Your task to perform on an android device: find which apps use the phone's location Image 0: 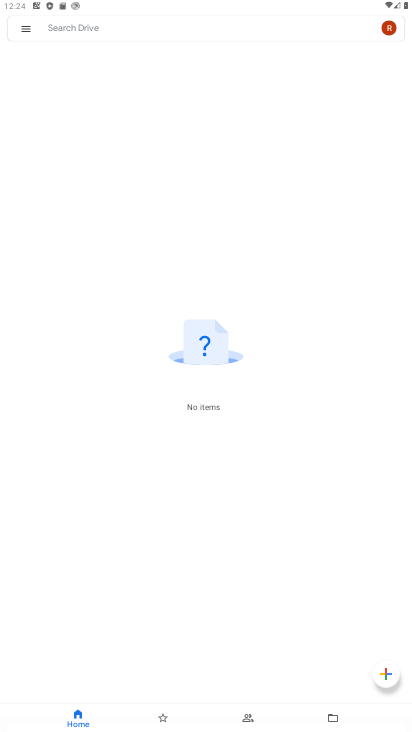
Step 0: press home button
Your task to perform on an android device: find which apps use the phone's location Image 1: 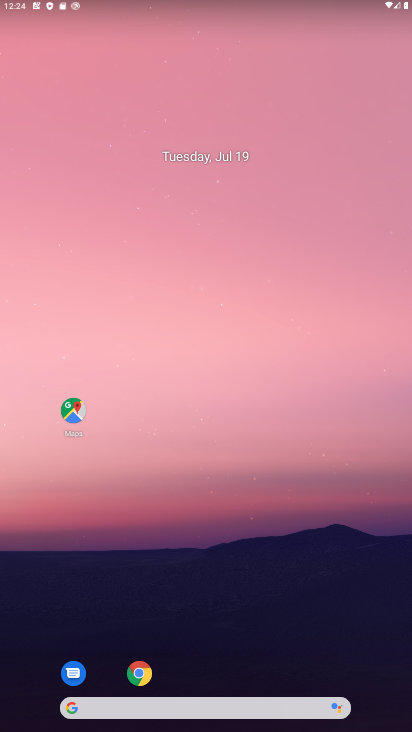
Step 1: drag from (282, 663) to (213, 27)
Your task to perform on an android device: find which apps use the phone's location Image 2: 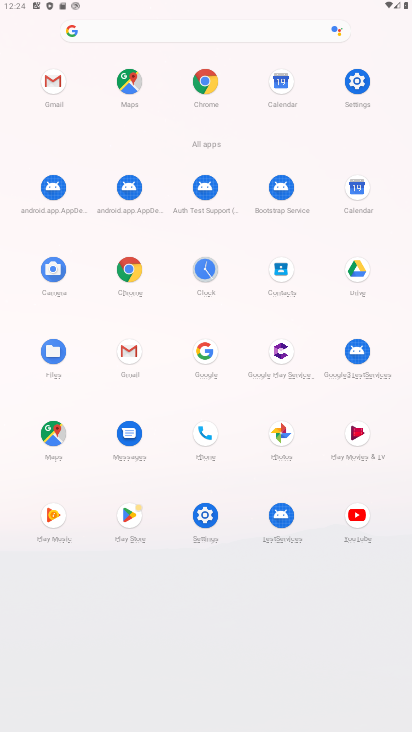
Step 2: click (359, 86)
Your task to perform on an android device: find which apps use the phone's location Image 3: 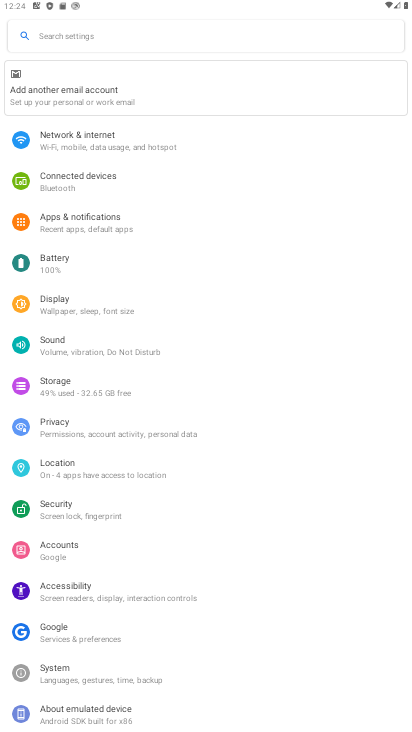
Step 3: click (135, 470)
Your task to perform on an android device: find which apps use the phone's location Image 4: 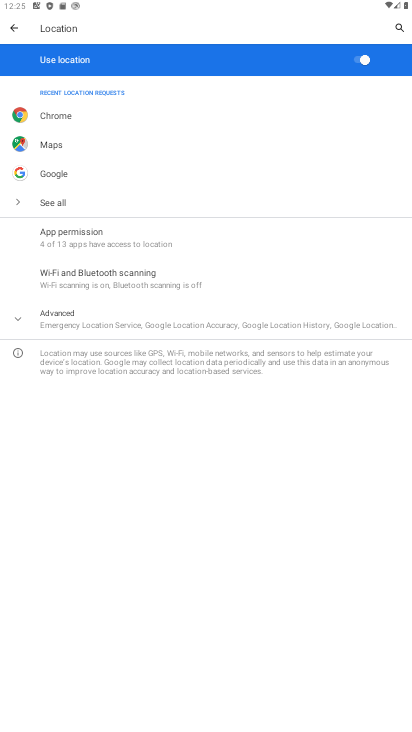
Step 4: click (96, 203)
Your task to perform on an android device: find which apps use the phone's location Image 5: 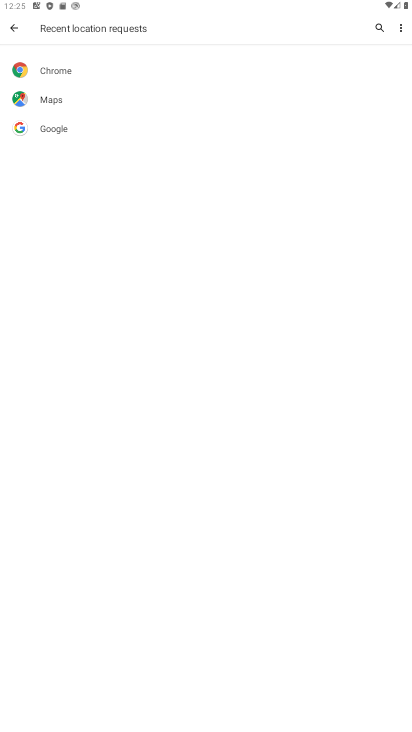
Step 5: task complete